Your task to perform on an android device: What's the weather going to be this weekend? Image 0: 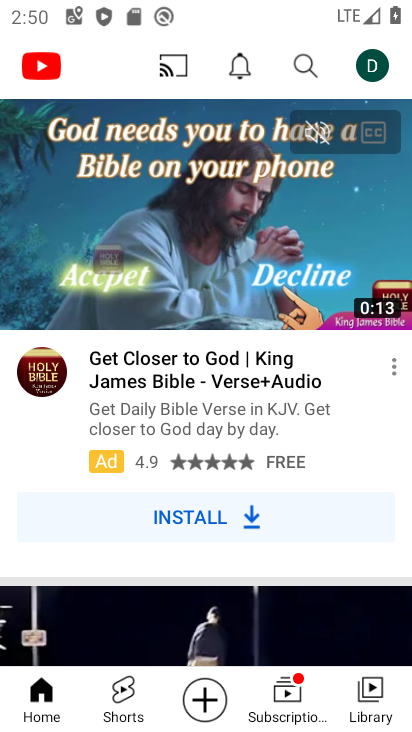
Step 0: press home button
Your task to perform on an android device: What's the weather going to be this weekend? Image 1: 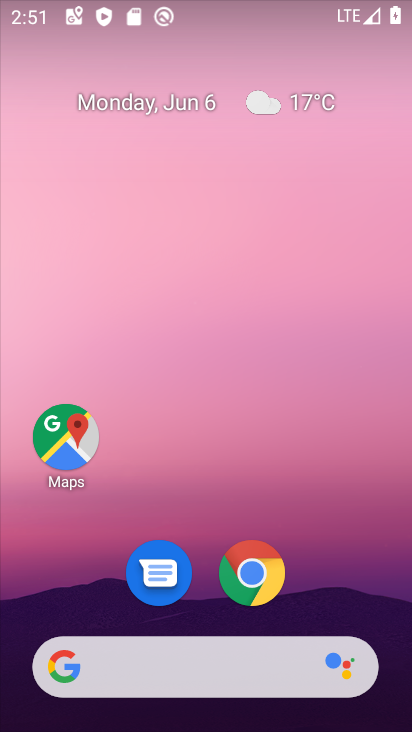
Step 1: click (293, 108)
Your task to perform on an android device: What's the weather going to be this weekend? Image 2: 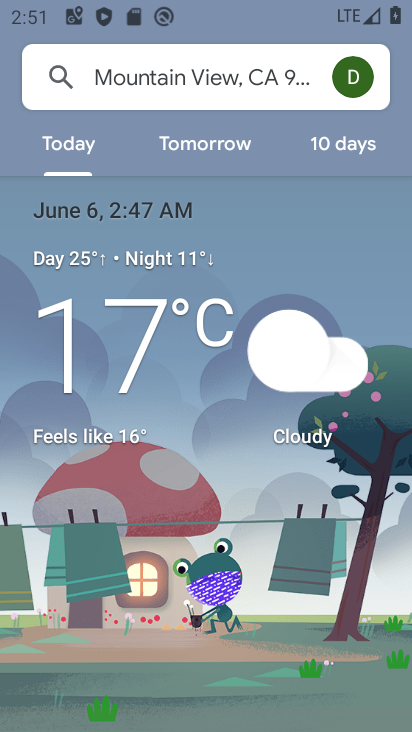
Step 2: click (355, 153)
Your task to perform on an android device: What's the weather going to be this weekend? Image 3: 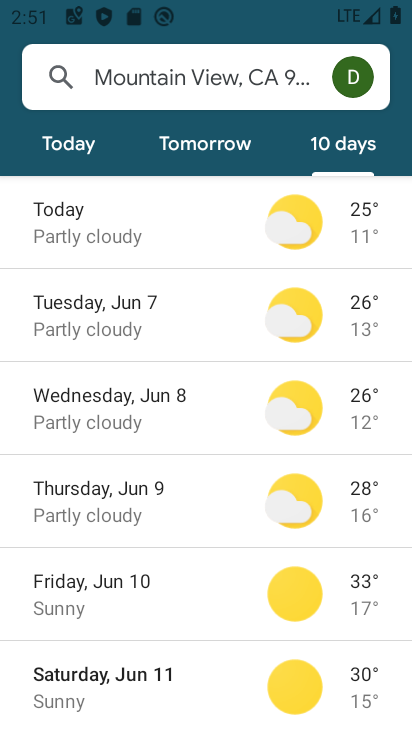
Step 3: drag from (209, 622) to (241, 406)
Your task to perform on an android device: What's the weather going to be this weekend? Image 4: 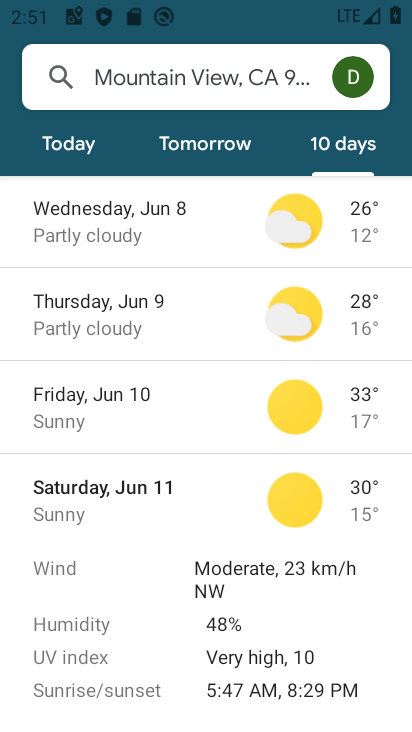
Step 4: click (143, 553)
Your task to perform on an android device: What's the weather going to be this weekend? Image 5: 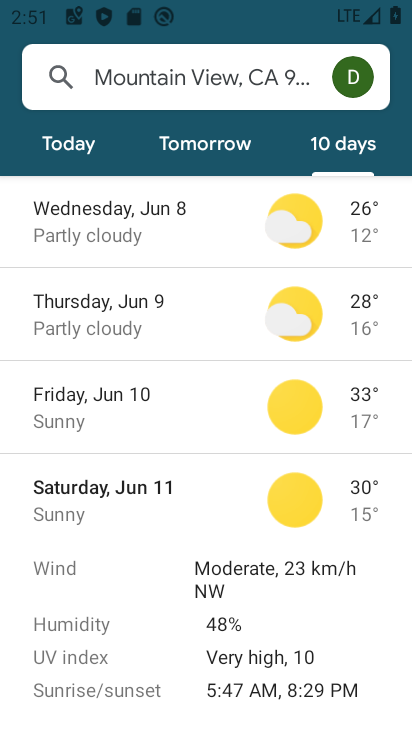
Step 5: task complete